Your task to perform on an android device: Open the web browser Image 0: 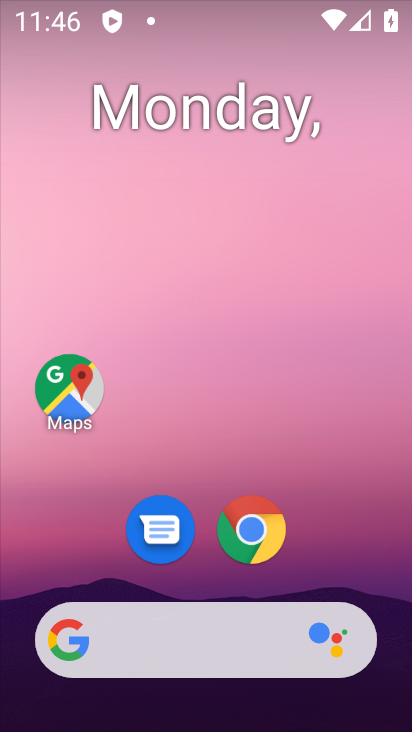
Step 0: drag from (380, 550) to (352, 134)
Your task to perform on an android device: Open the web browser Image 1: 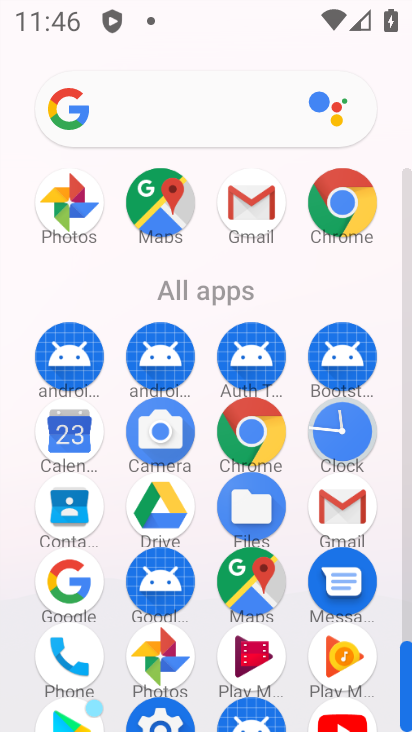
Step 1: click (272, 439)
Your task to perform on an android device: Open the web browser Image 2: 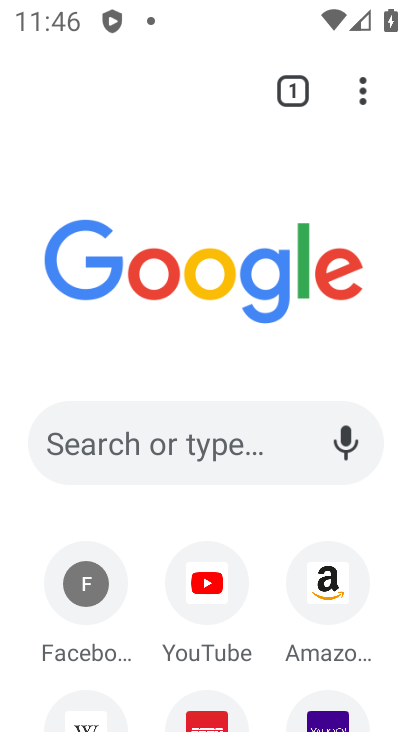
Step 2: task complete